Your task to perform on an android device: Is it going to rain tomorrow? Image 0: 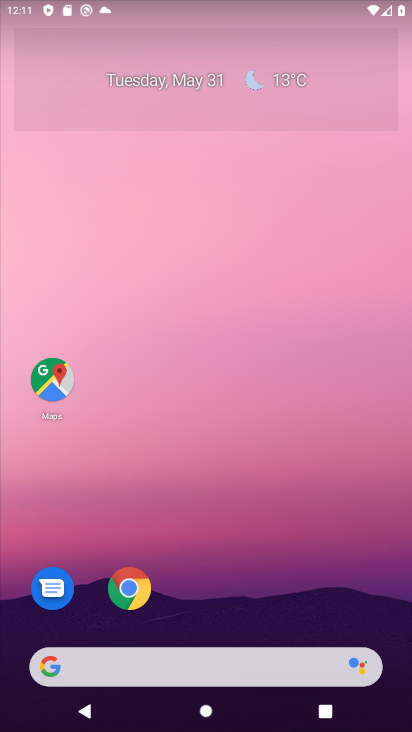
Step 0: drag from (408, 693) to (300, 42)
Your task to perform on an android device: Is it going to rain tomorrow? Image 1: 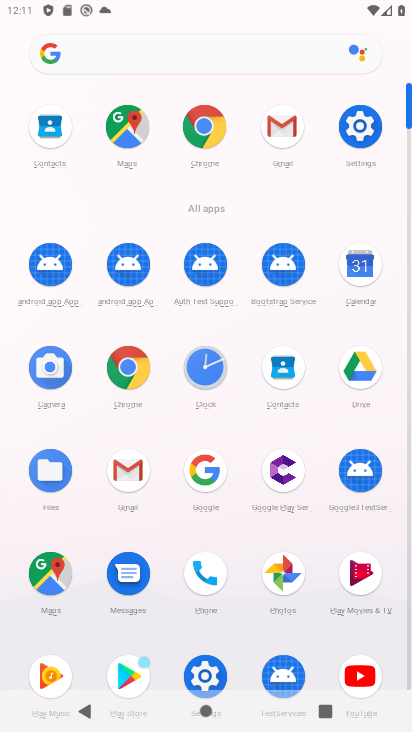
Step 1: click (212, 472)
Your task to perform on an android device: Is it going to rain tomorrow? Image 2: 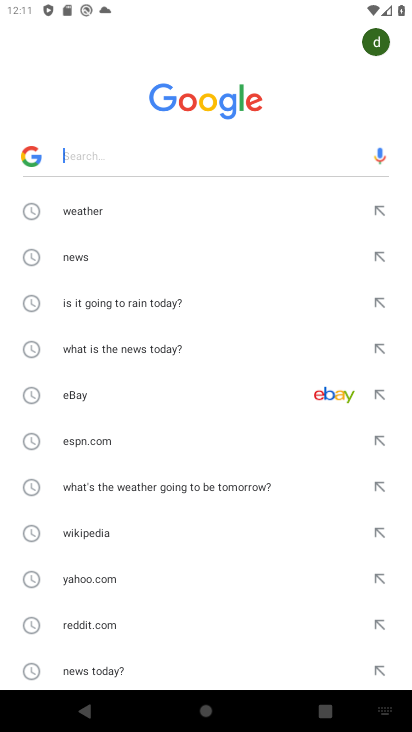
Step 2: press back button
Your task to perform on an android device: Is it going to rain tomorrow? Image 3: 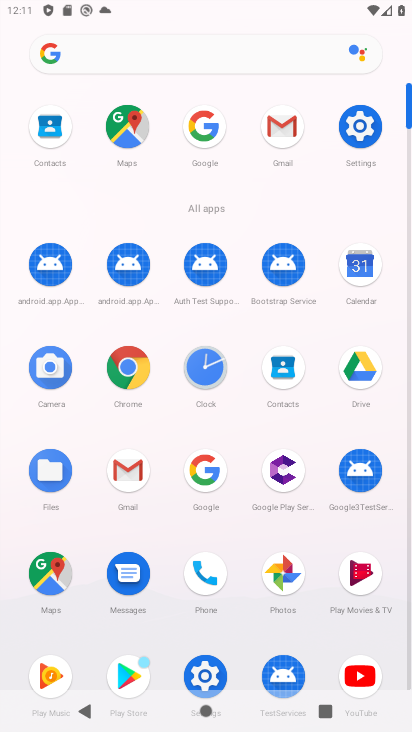
Step 3: press back button
Your task to perform on an android device: Is it going to rain tomorrow? Image 4: 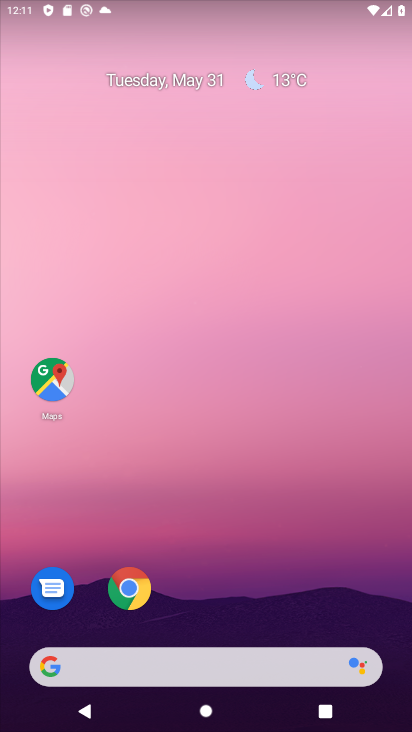
Step 4: click (292, 74)
Your task to perform on an android device: Is it going to rain tomorrow? Image 5: 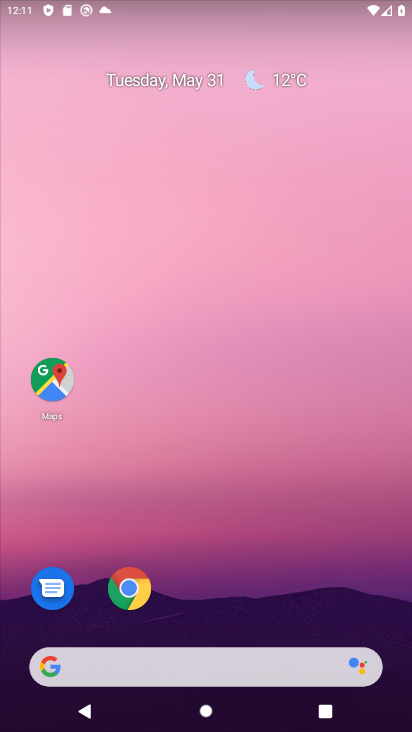
Step 5: click (275, 77)
Your task to perform on an android device: Is it going to rain tomorrow? Image 6: 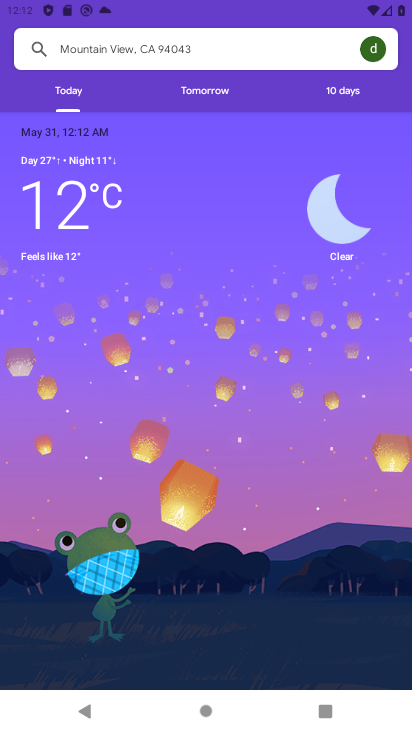
Step 6: click (215, 95)
Your task to perform on an android device: Is it going to rain tomorrow? Image 7: 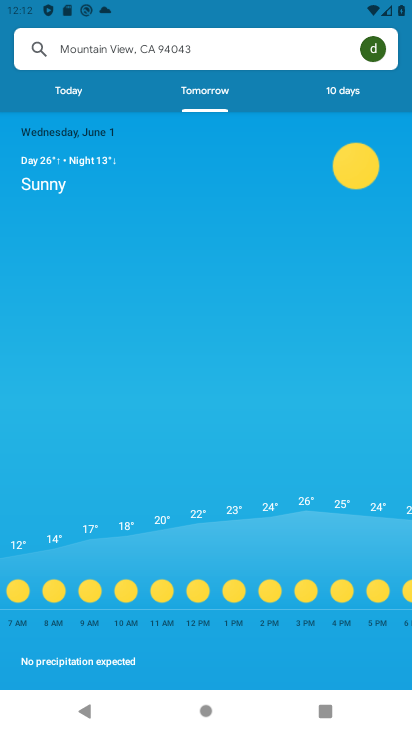
Step 7: task complete